Your task to perform on an android device: change the clock display to show seconds Image 0: 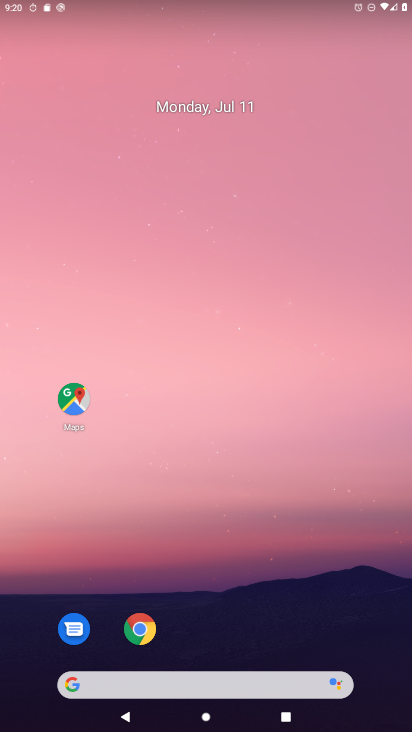
Step 0: drag from (238, 622) to (288, 114)
Your task to perform on an android device: change the clock display to show seconds Image 1: 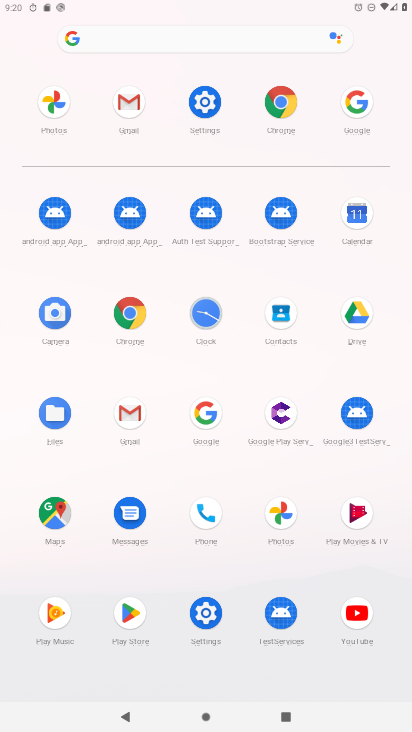
Step 1: click (211, 313)
Your task to perform on an android device: change the clock display to show seconds Image 2: 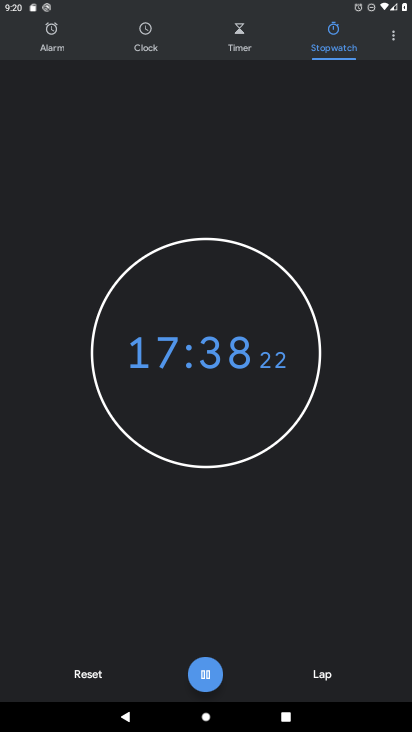
Step 2: click (390, 31)
Your task to perform on an android device: change the clock display to show seconds Image 3: 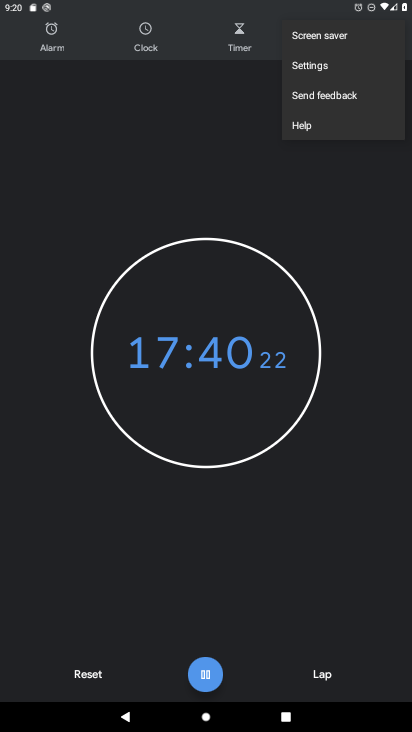
Step 3: click (334, 63)
Your task to perform on an android device: change the clock display to show seconds Image 4: 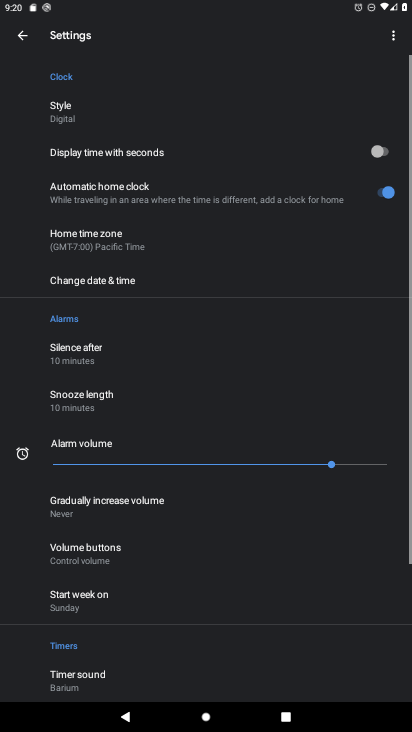
Step 4: click (73, 113)
Your task to perform on an android device: change the clock display to show seconds Image 5: 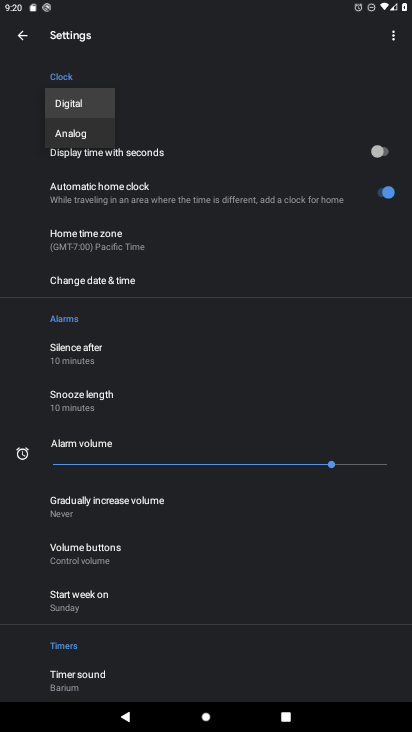
Step 5: click (380, 154)
Your task to perform on an android device: change the clock display to show seconds Image 6: 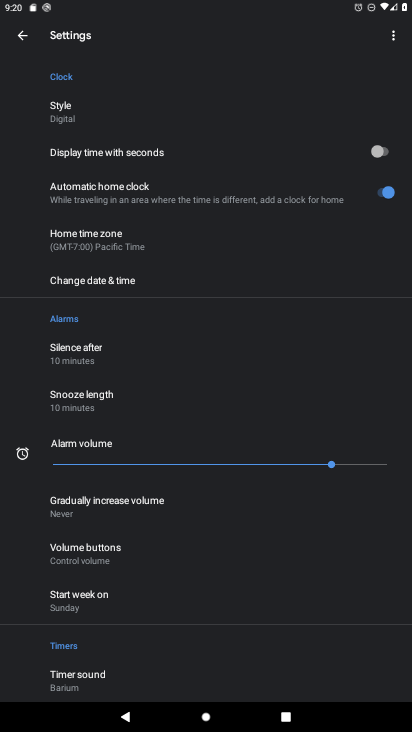
Step 6: click (383, 152)
Your task to perform on an android device: change the clock display to show seconds Image 7: 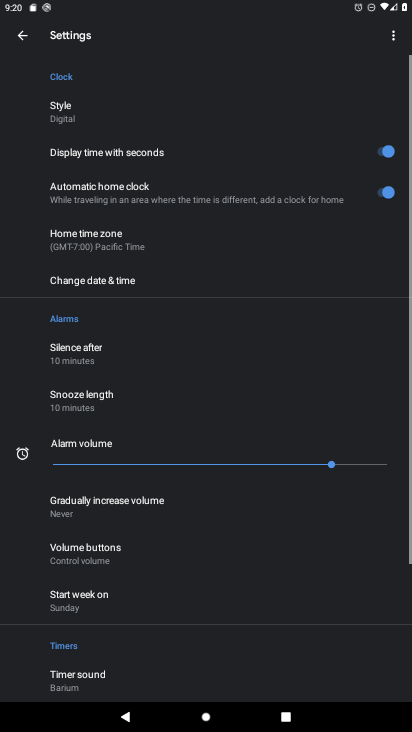
Step 7: task complete